Your task to perform on an android device: Open Google Maps and go to "Timeline" Image 0: 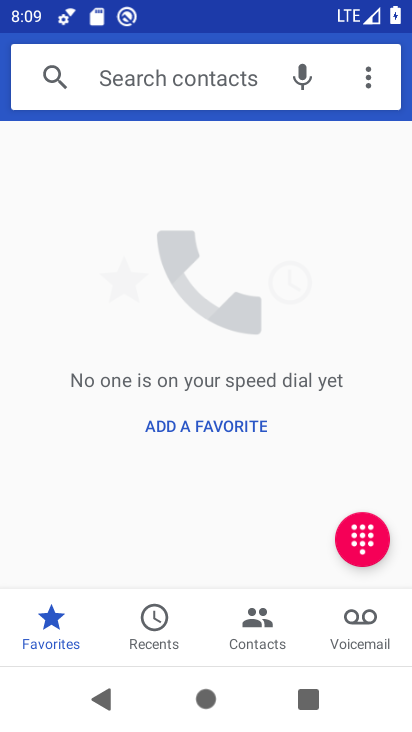
Step 0: press home button
Your task to perform on an android device: Open Google Maps and go to "Timeline" Image 1: 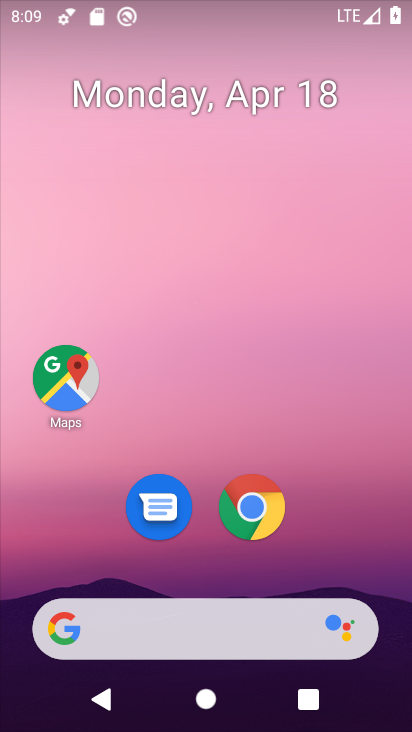
Step 1: click (63, 398)
Your task to perform on an android device: Open Google Maps and go to "Timeline" Image 2: 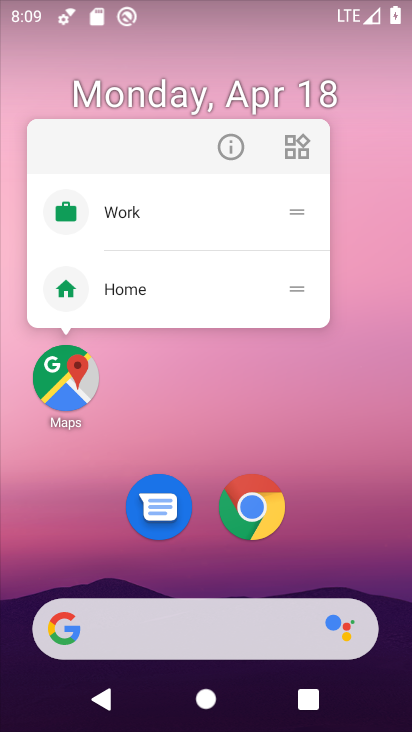
Step 2: click (61, 397)
Your task to perform on an android device: Open Google Maps and go to "Timeline" Image 3: 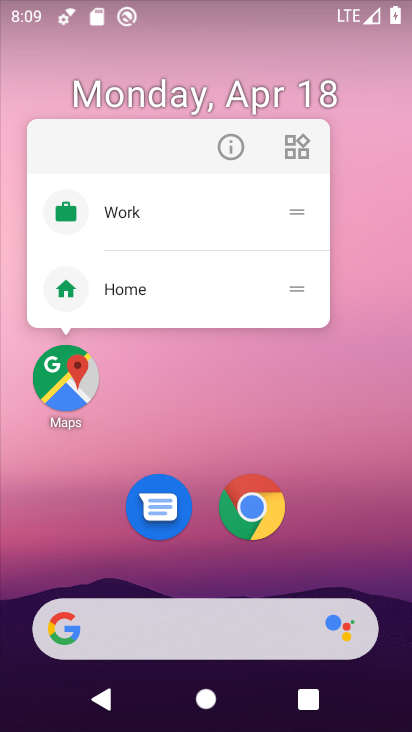
Step 3: click (61, 397)
Your task to perform on an android device: Open Google Maps and go to "Timeline" Image 4: 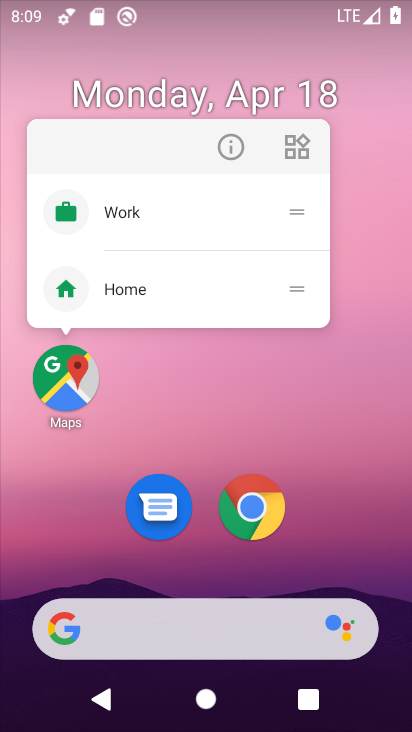
Step 4: click (84, 390)
Your task to perform on an android device: Open Google Maps and go to "Timeline" Image 5: 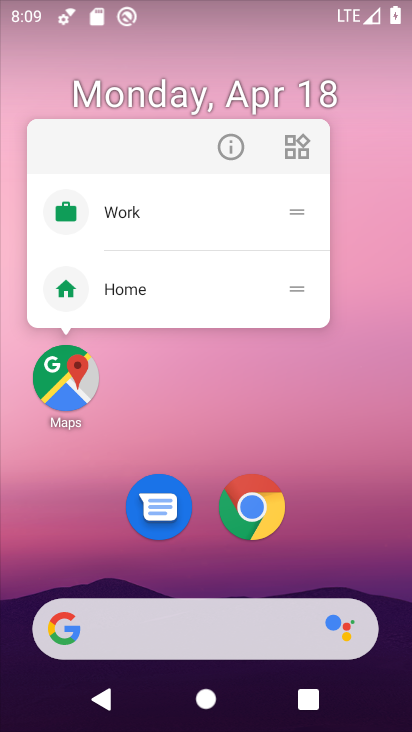
Step 5: click (84, 390)
Your task to perform on an android device: Open Google Maps and go to "Timeline" Image 6: 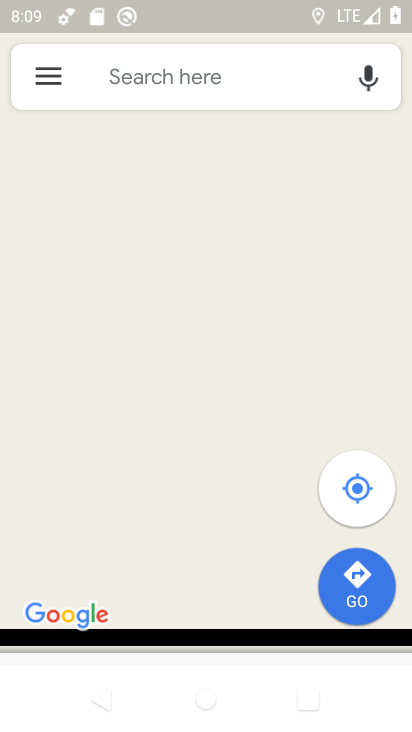
Step 6: click (57, 85)
Your task to perform on an android device: Open Google Maps and go to "Timeline" Image 7: 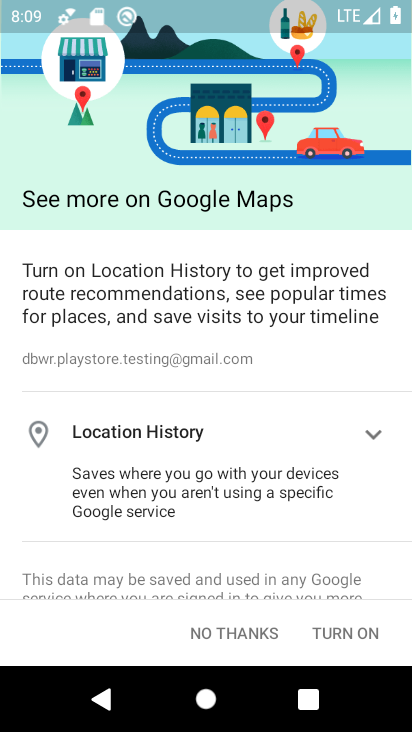
Step 7: click (247, 621)
Your task to perform on an android device: Open Google Maps and go to "Timeline" Image 8: 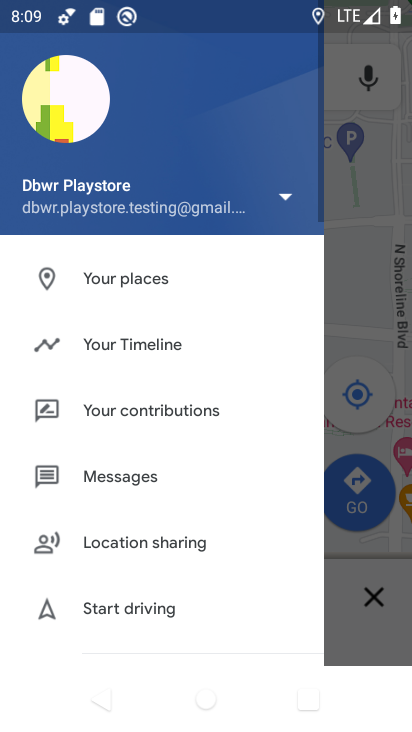
Step 8: click (141, 345)
Your task to perform on an android device: Open Google Maps and go to "Timeline" Image 9: 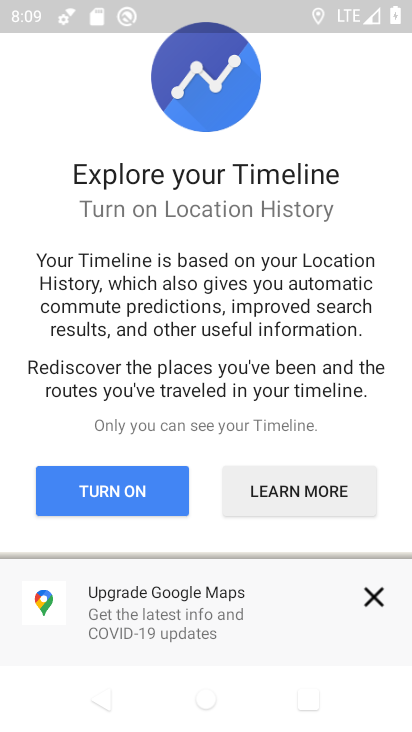
Step 9: task complete